Your task to perform on an android device: Go to Maps Image 0: 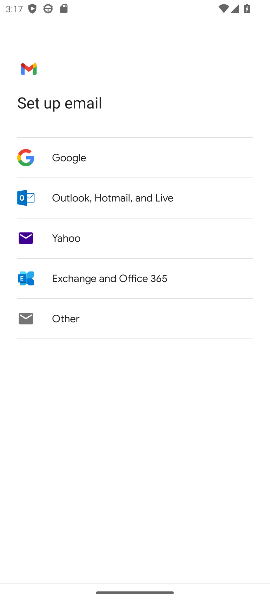
Step 0: press home button
Your task to perform on an android device: Go to Maps Image 1: 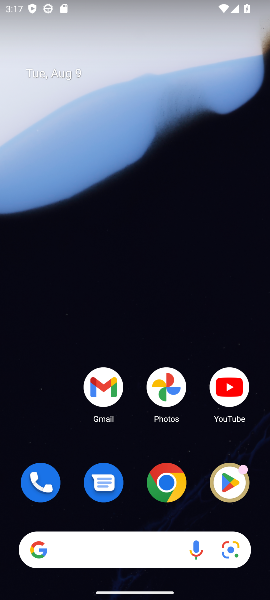
Step 1: drag from (132, 442) to (138, 143)
Your task to perform on an android device: Go to Maps Image 2: 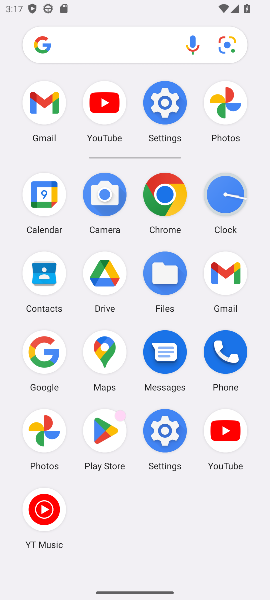
Step 2: click (110, 366)
Your task to perform on an android device: Go to Maps Image 3: 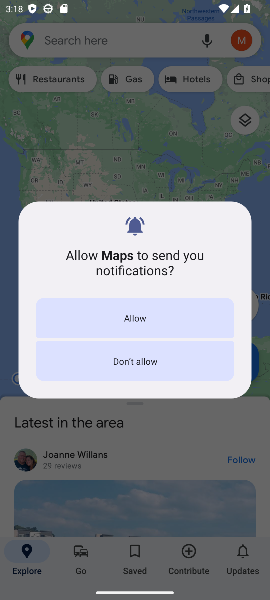
Step 3: click (147, 321)
Your task to perform on an android device: Go to Maps Image 4: 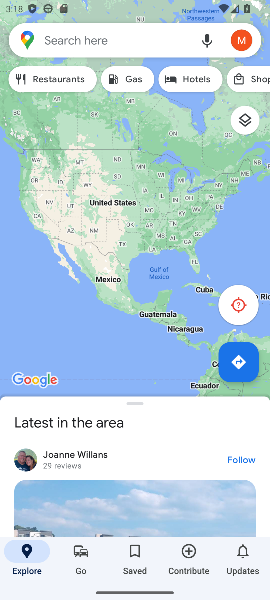
Step 4: task complete